Your task to perform on an android device: Search for sushi restaurants on Maps Image 0: 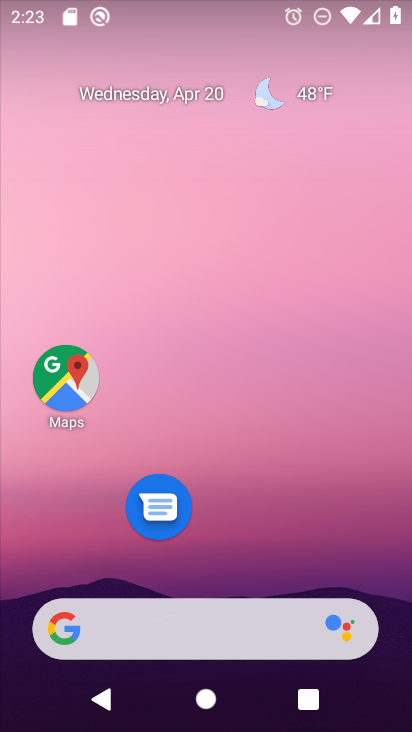
Step 0: drag from (205, 726) to (213, 96)
Your task to perform on an android device: Search for sushi restaurants on Maps Image 1: 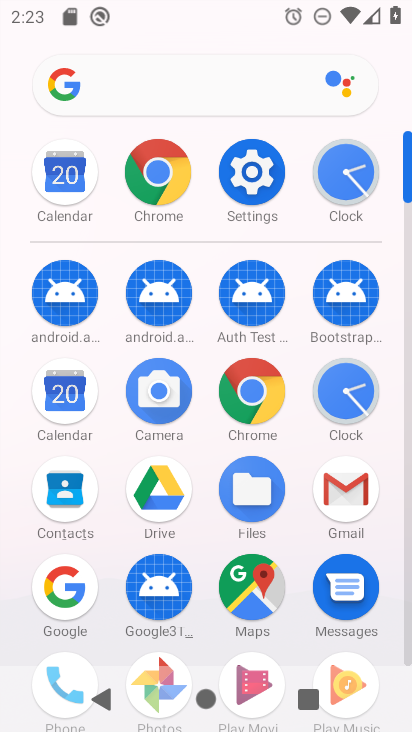
Step 1: click (259, 590)
Your task to perform on an android device: Search for sushi restaurants on Maps Image 2: 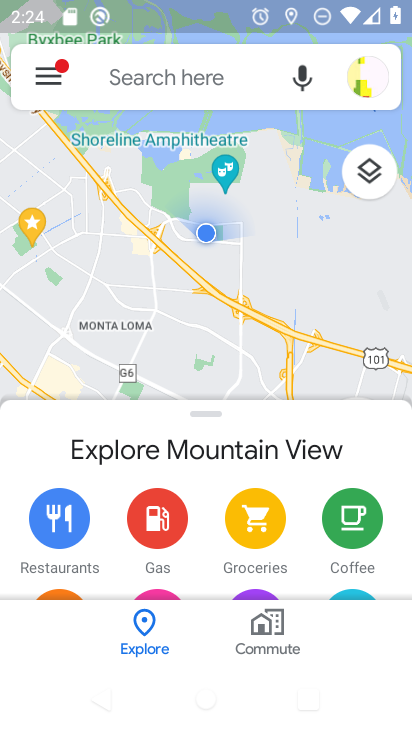
Step 2: click (171, 80)
Your task to perform on an android device: Search for sushi restaurants on Maps Image 3: 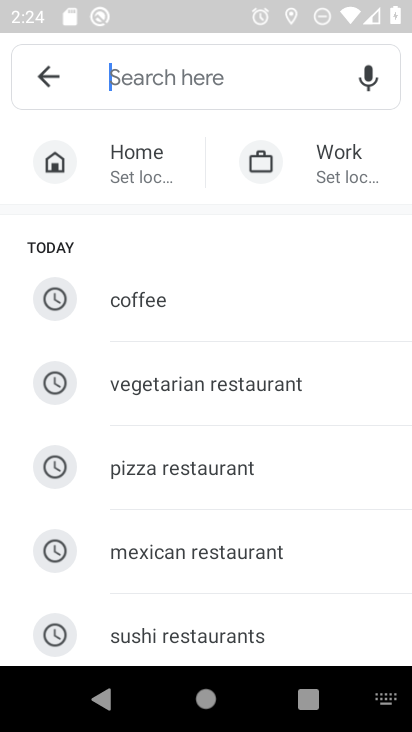
Step 3: type "sushi restaurants"
Your task to perform on an android device: Search for sushi restaurants on Maps Image 4: 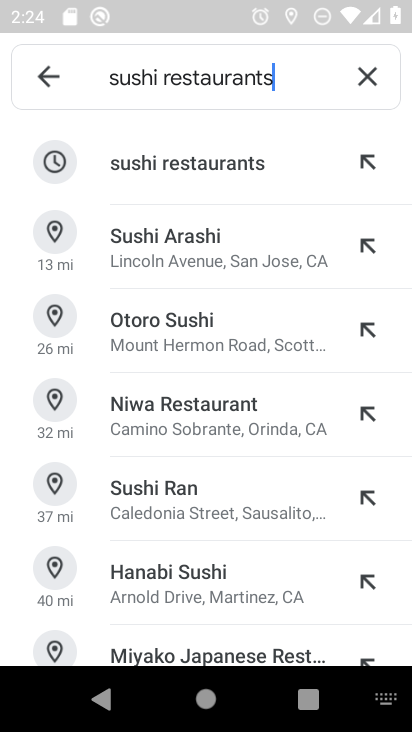
Step 4: click (159, 165)
Your task to perform on an android device: Search for sushi restaurants on Maps Image 5: 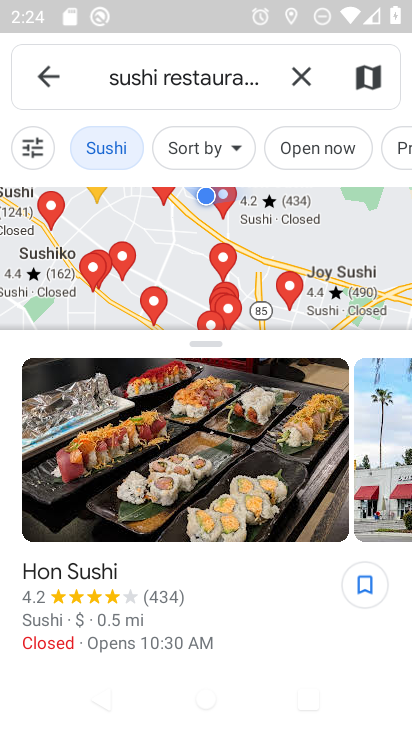
Step 5: task complete